Your task to perform on an android device: Go to Google Image 0: 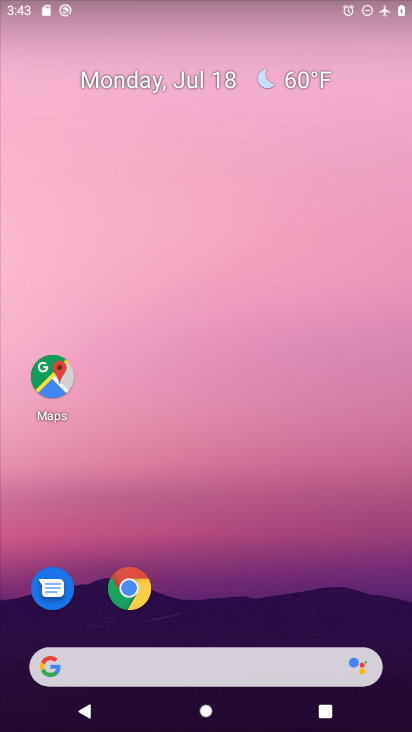
Step 0: press home button
Your task to perform on an android device: Go to Google Image 1: 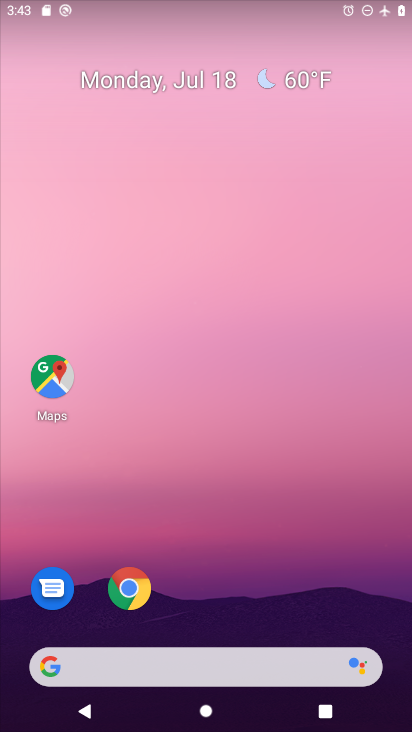
Step 1: drag from (259, 609) to (292, 155)
Your task to perform on an android device: Go to Google Image 2: 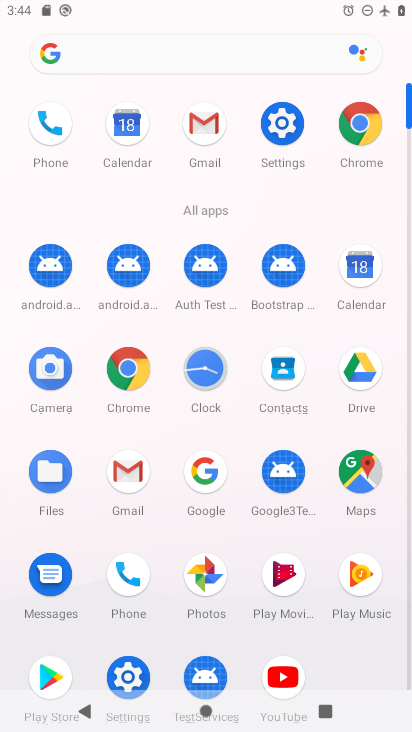
Step 2: click (204, 465)
Your task to perform on an android device: Go to Google Image 3: 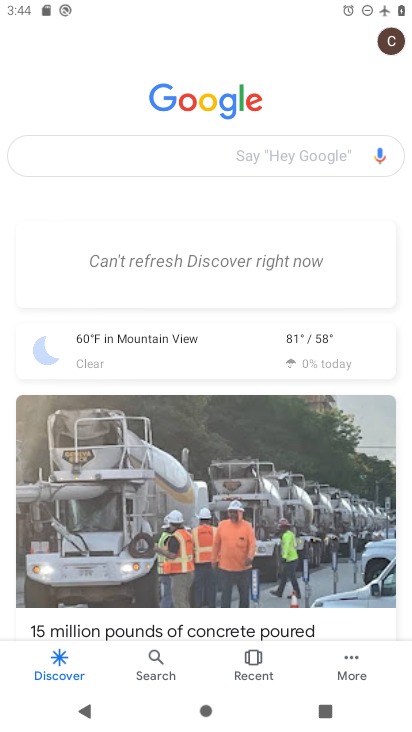
Step 3: task complete